Your task to perform on an android device: visit the assistant section in the google photos Image 0: 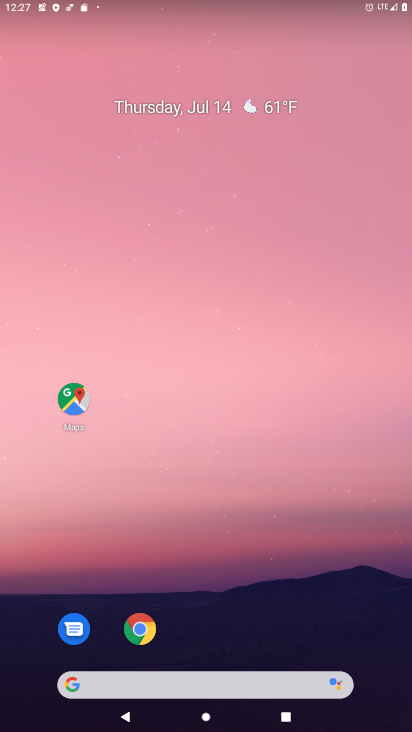
Step 0: drag from (239, 560) to (178, 60)
Your task to perform on an android device: visit the assistant section in the google photos Image 1: 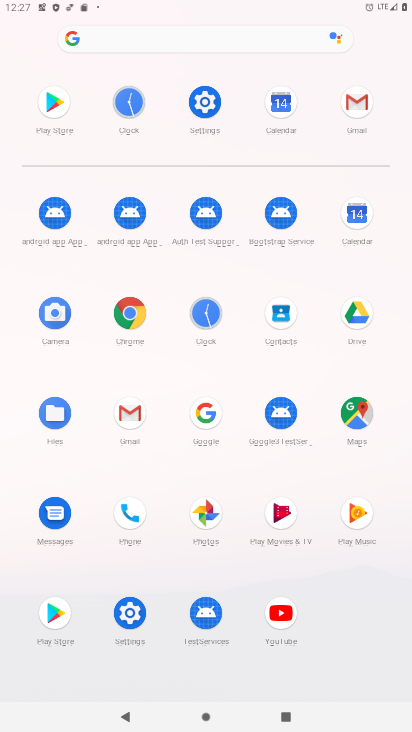
Step 1: click (208, 506)
Your task to perform on an android device: visit the assistant section in the google photos Image 2: 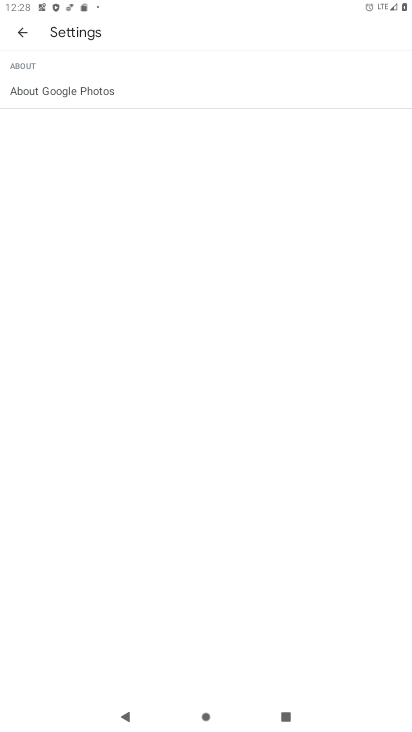
Step 2: click (23, 31)
Your task to perform on an android device: visit the assistant section in the google photos Image 3: 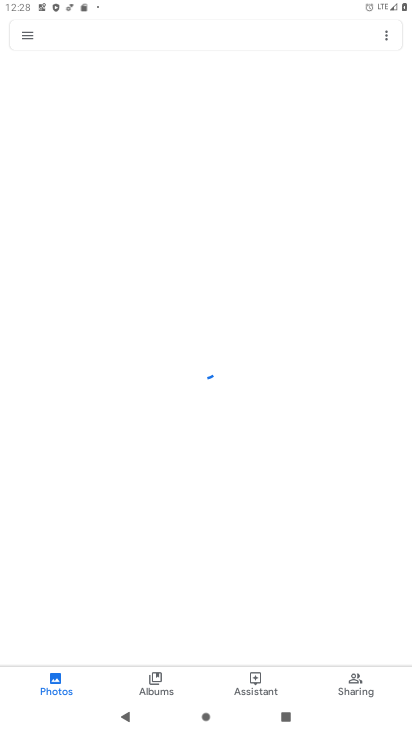
Step 3: click (255, 678)
Your task to perform on an android device: visit the assistant section in the google photos Image 4: 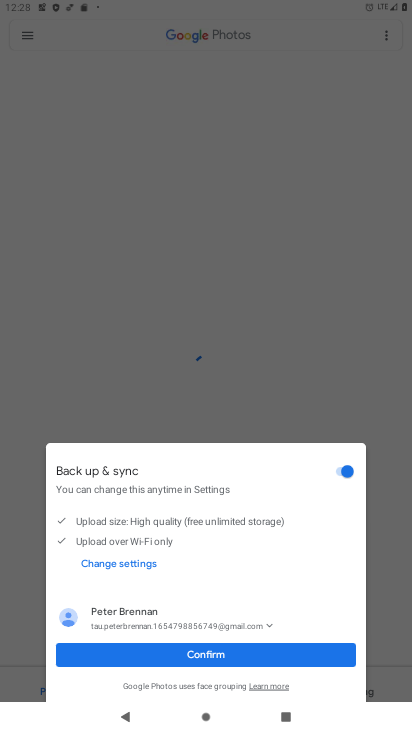
Step 4: click (217, 652)
Your task to perform on an android device: visit the assistant section in the google photos Image 5: 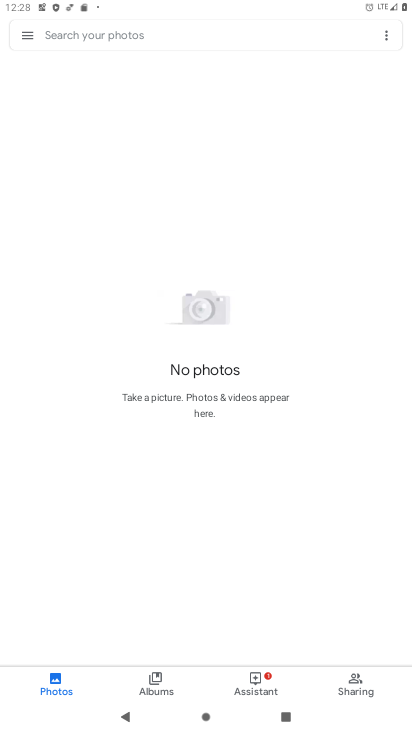
Step 5: task complete